Your task to perform on an android device: turn pop-ups off in chrome Image 0: 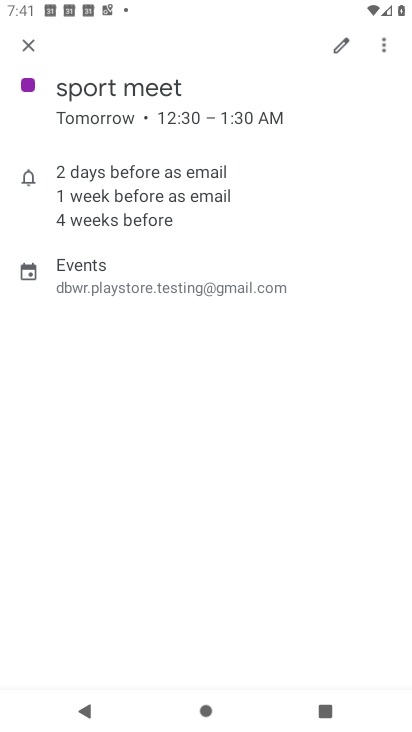
Step 0: press home button
Your task to perform on an android device: turn pop-ups off in chrome Image 1: 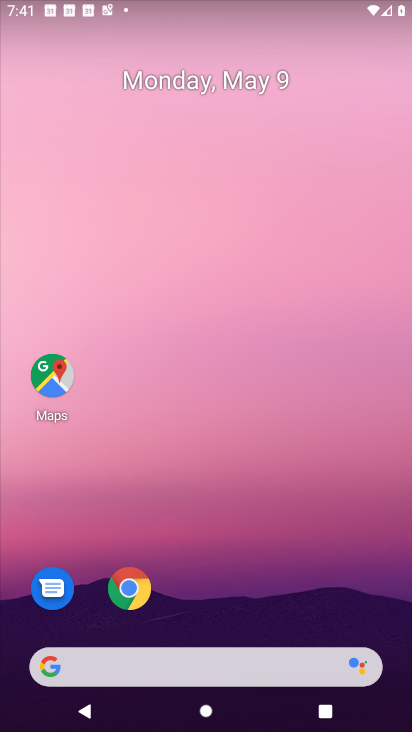
Step 1: drag from (187, 650) to (348, 124)
Your task to perform on an android device: turn pop-ups off in chrome Image 2: 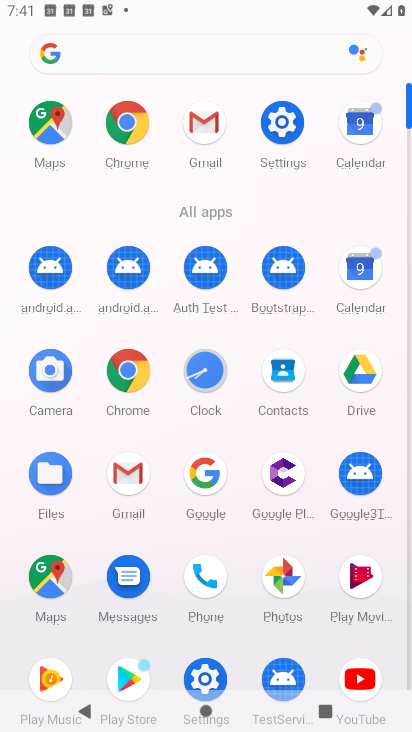
Step 2: click (133, 133)
Your task to perform on an android device: turn pop-ups off in chrome Image 3: 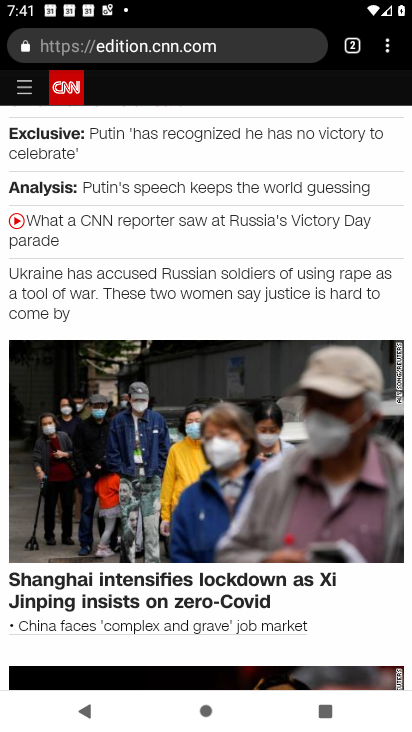
Step 3: drag from (387, 47) to (246, 509)
Your task to perform on an android device: turn pop-ups off in chrome Image 4: 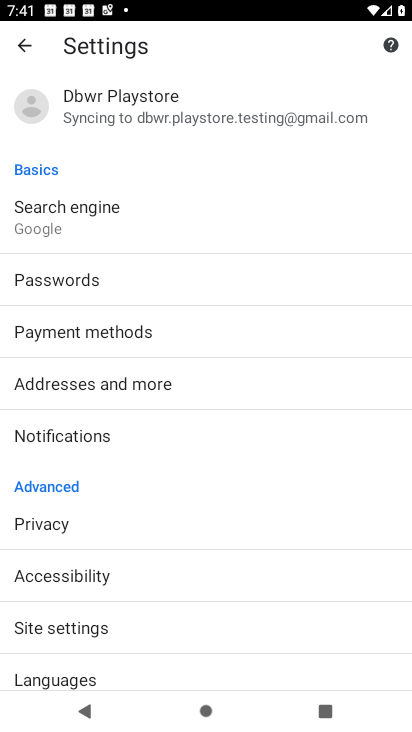
Step 4: click (88, 627)
Your task to perform on an android device: turn pop-ups off in chrome Image 5: 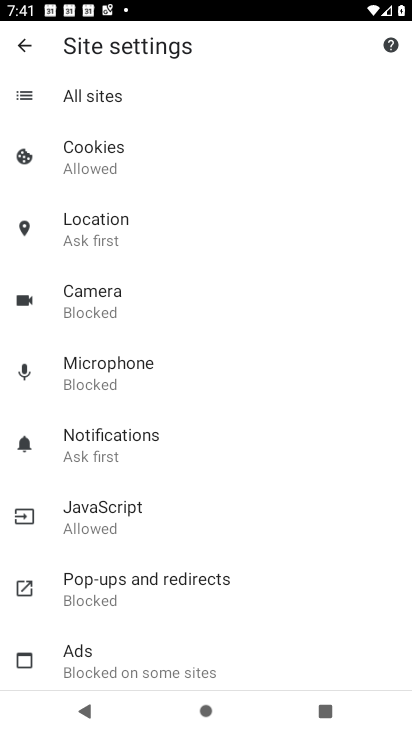
Step 5: click (124, 584)
Your task to perform on an android device: turn pop-ups off in chrome Image 6: 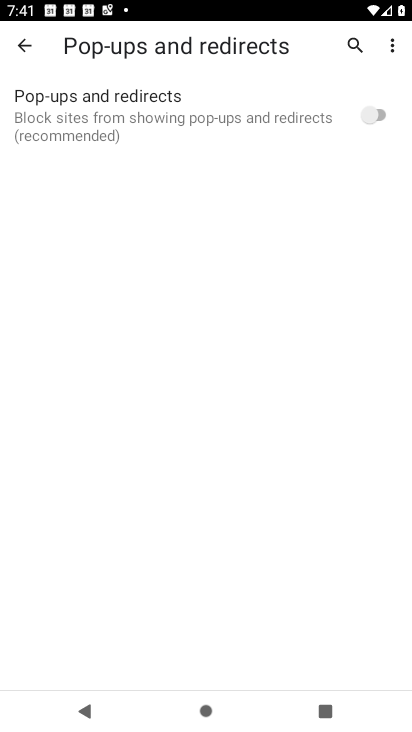
Step 6: task complete